Your task to perform on an android device: Open Amazon Image 0: 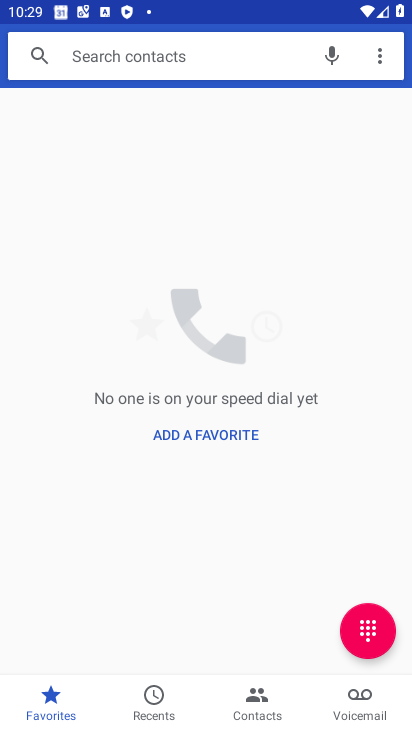
Step 0: press home button
Your task to perform on an android device: Open Amazon Image 1: 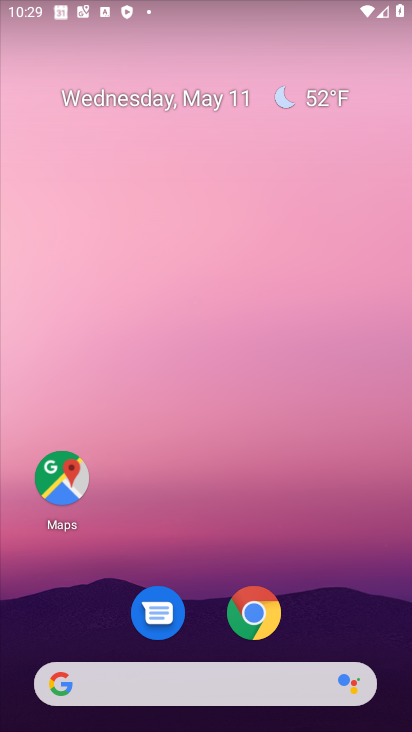
Step 1: drag from (190, 362) to (190, 169)
Your task to perform on an android device: Open Amazon Image 2: 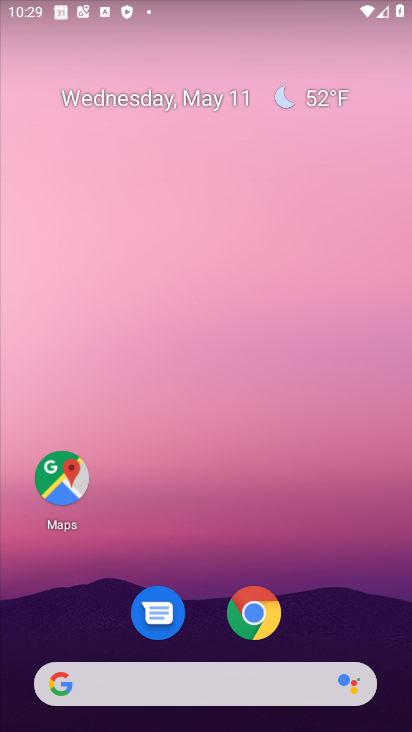
Step 2: drag from (241, 557) to (222, 162)
Your task to perform on an android device: Open Amazon Image 3: 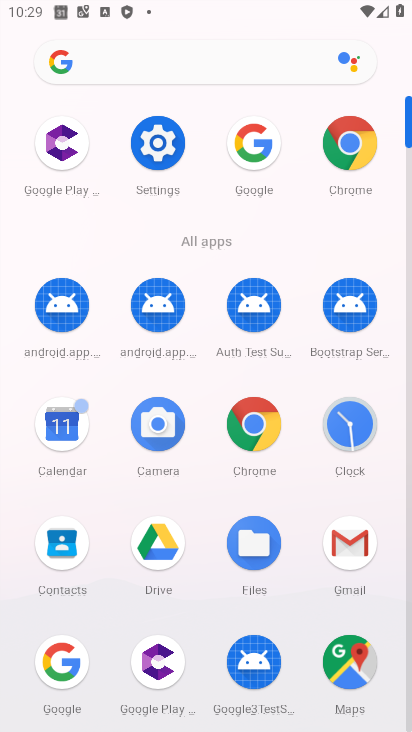
Step 3: click (272, 433)
Your task to perform on an android device: Open Amazon Image 4: 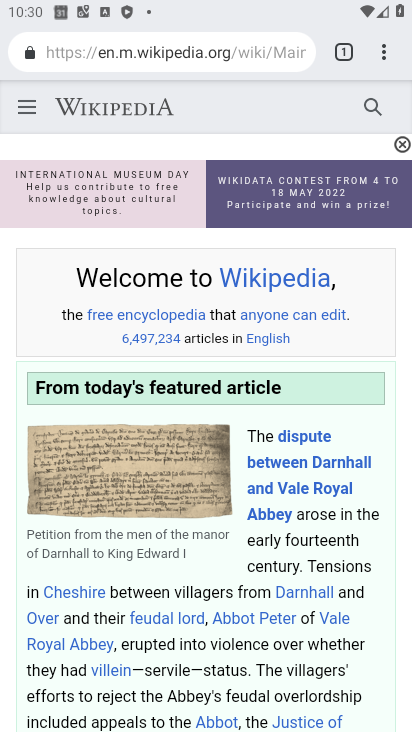
Step 4: click (355, 55)
Your task to perform on an android device: Open Amazon Image 5: 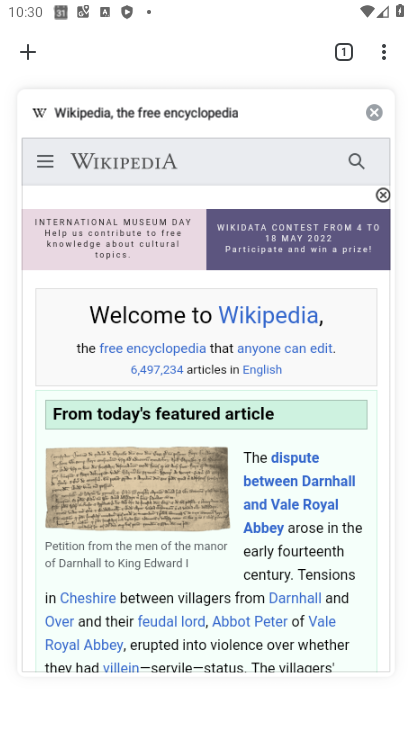
Step 5: click (34, 49)
Your task to perform on an android device: Open Amazon Image 6: 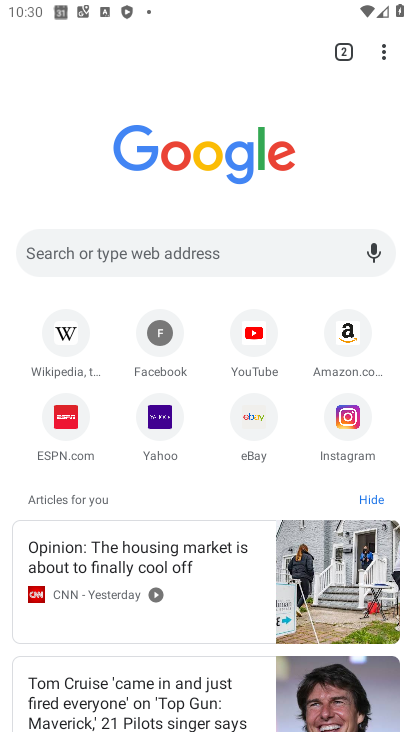
Step 6: click (357, 356)
Your task to perform on an android device: Open Amazon Image 7: 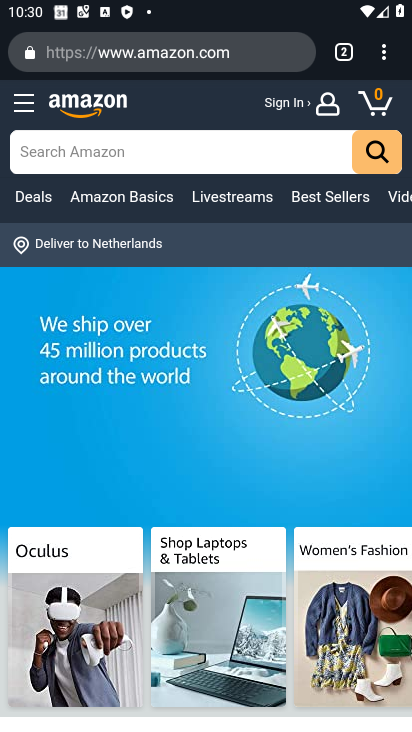
Step 7: task complete